Your task to perform on an android device: Show me popular videos on Youtube Image 0: 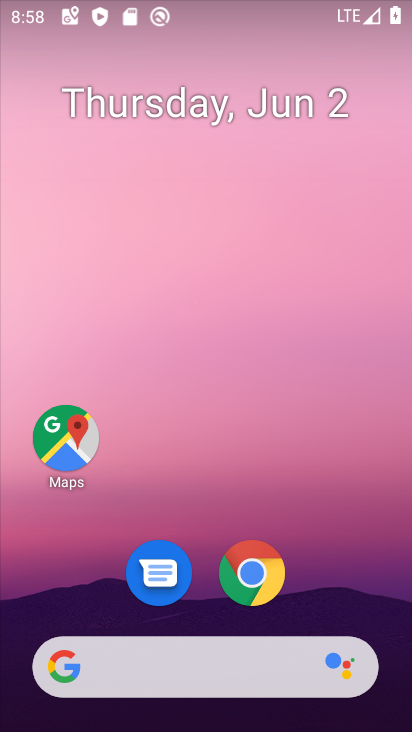
Step 0: press home button
Your task to perform on an android device: Show me popular videos on Youtube Image 1: 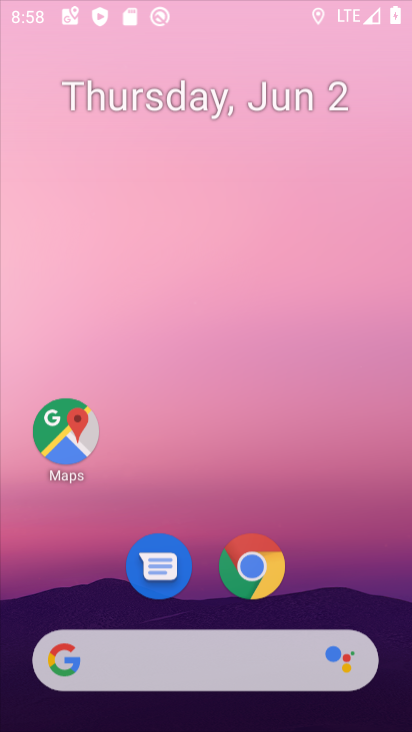
Step 1: click (273, 587)
Your task to perform on an android device: Show me popular videos on Youtube Image 2: 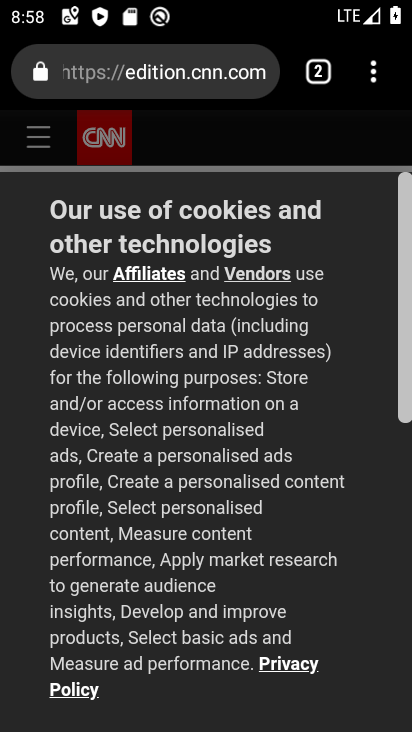
Step 2: press home button
Your task to perform on an android device: Show me popular videos on Youtube Image 3: 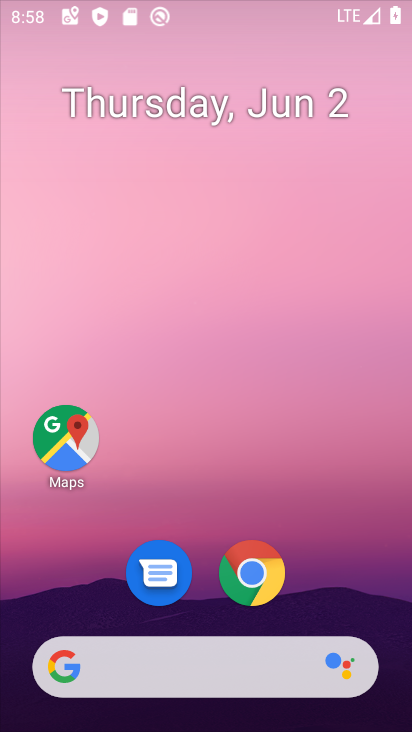
Step 3: drag from (369, 658) to (386, 100)
Your task to perform on an android device: Show me popular videos on Youtube Image 4: 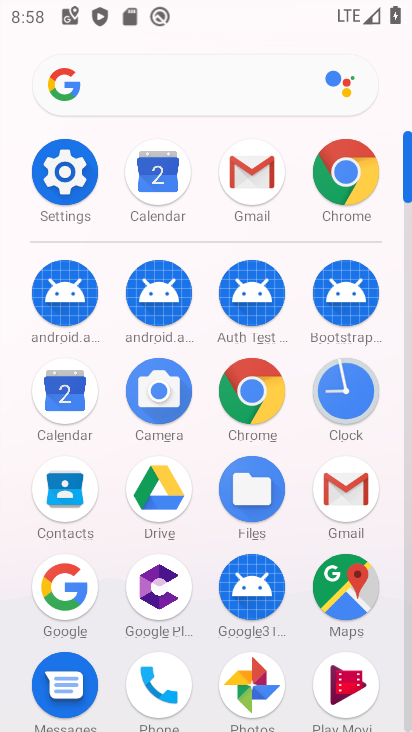
Step 4: click (405, 722)
Your task to perform on an android device: Show me popular videos on Youtube Image 5: 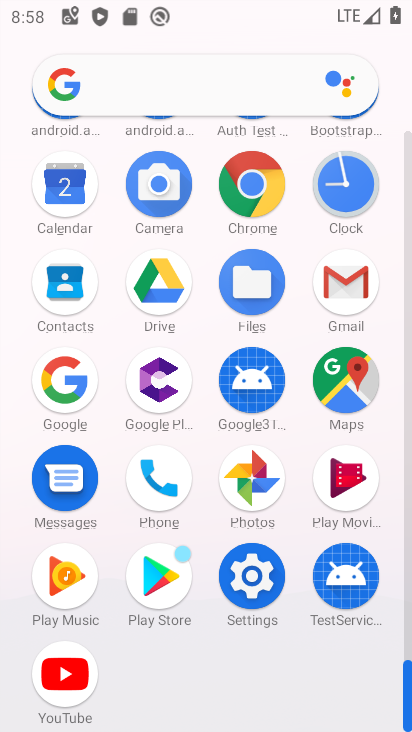
Step 5: click (42, 668)
Your task to perform on an android device: Show me popular videos on Youtube Image 6: 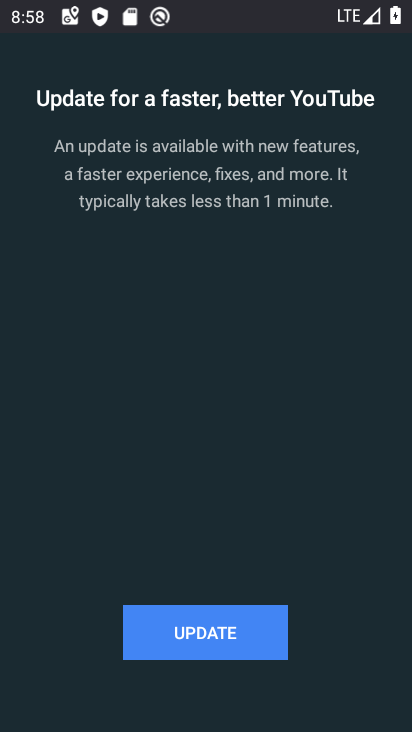
Step 6: click (185, 639)
Your task to perform on an android device: Show me popular videos on Youtube Image 7: 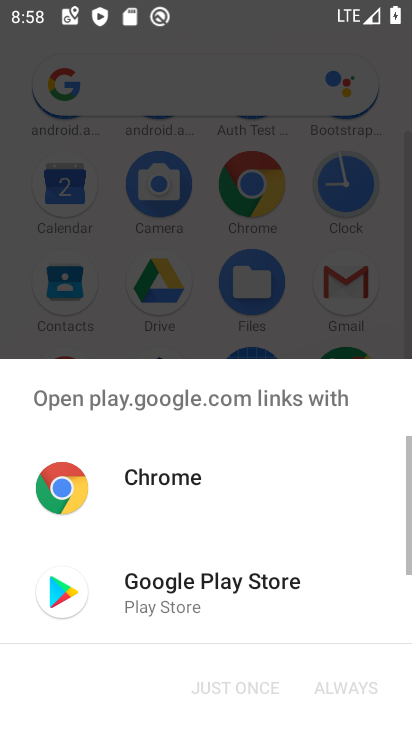
Step 7: click (145, 586)
Your task to perform on an android device: Show me popular videos on Youtube Image 8: 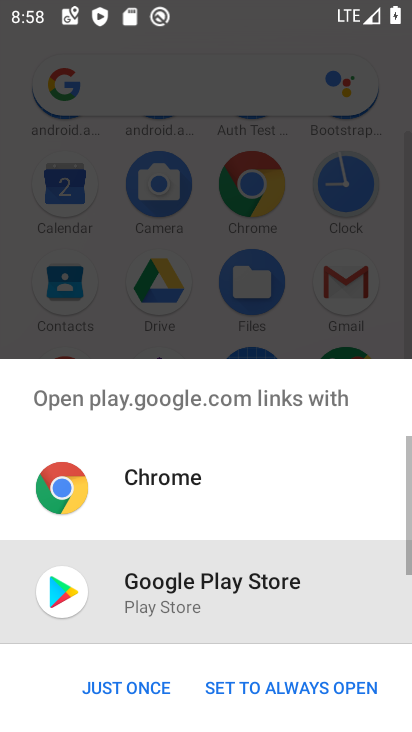
Step 8: click (136, 679)
Your task to perform on an android device: Show me popular videos on Youtube Image 9: 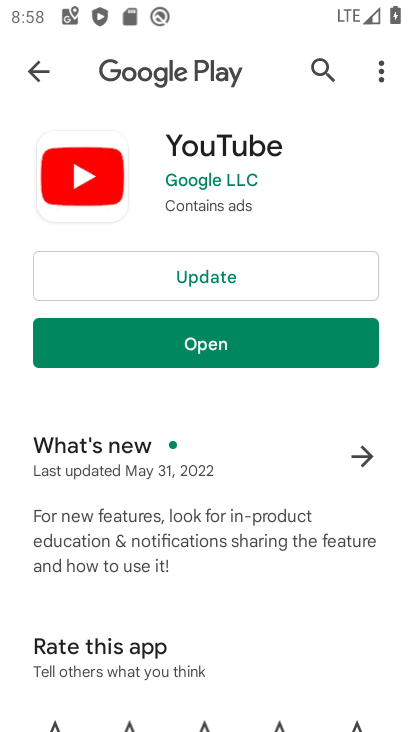
Step 9: click (97, 276)
Your task to perform on an android device: Show me popular videos on Youtube Image 10: 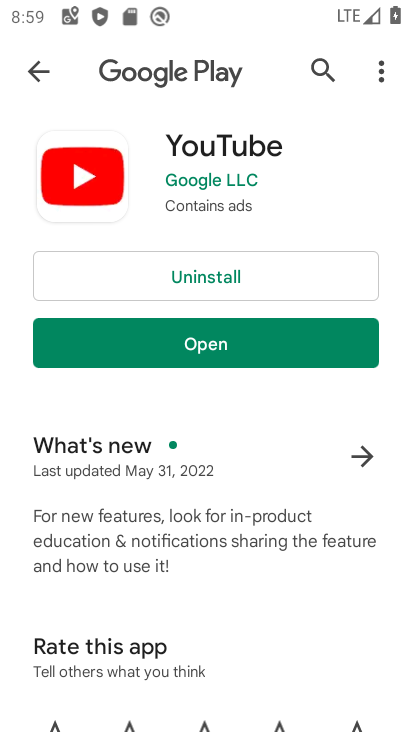
Step 10: click (288, 354)
Your task to perform on an android device: Show me popular videos on Youtube Image 11: 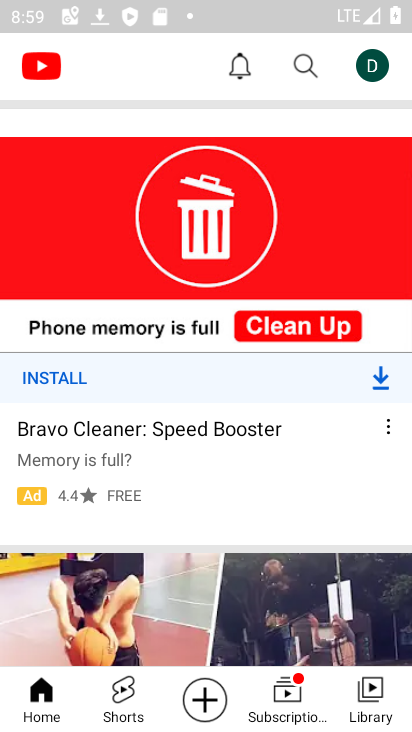
Step 11: click (310, 47)
Your task to perform on an android device: Show me popular videos on Youtube Image 12: 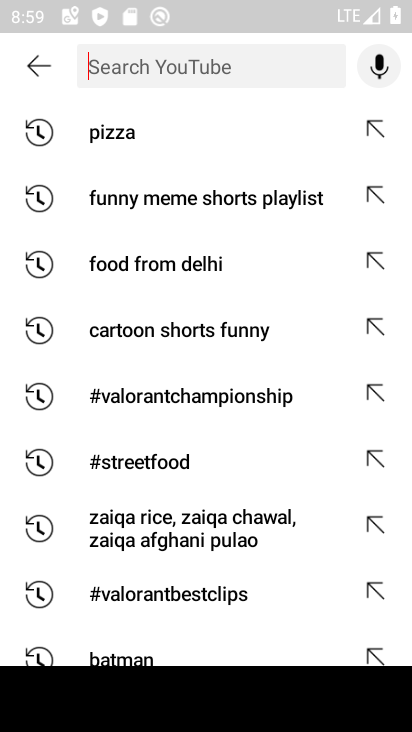
Step 12: type "popular videos"
Your task to perform on an android device: Show me popular videos on Youtube Image 13: 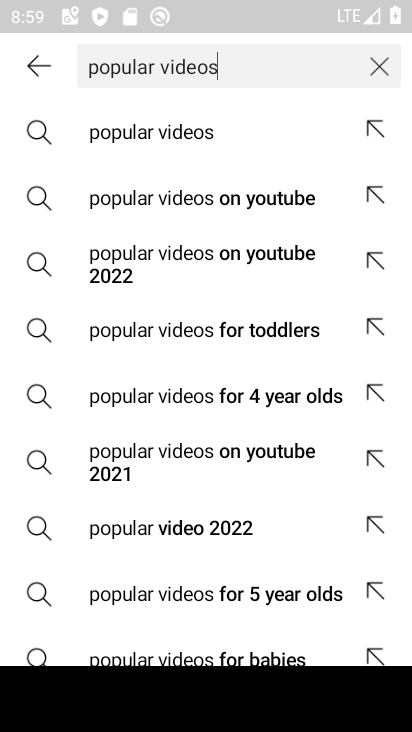
Step 13: click (223, 195)
Your task to perform on an android device: Show me popular videos on Youtube Image 14: 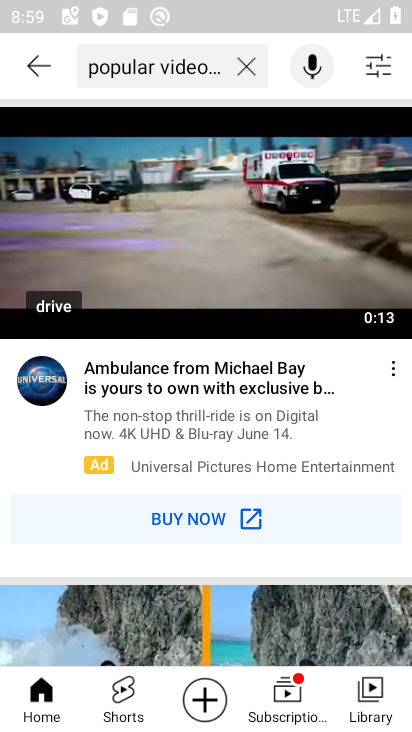
Step 14: task complete